Your task to perform on an android device: change notifications settings Image 0: 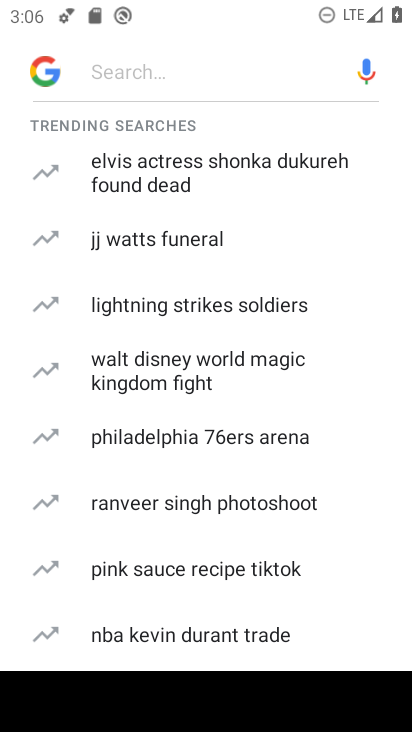
Step 0: press home button
Your task to perform on an android device: change notifications settings Image 1: 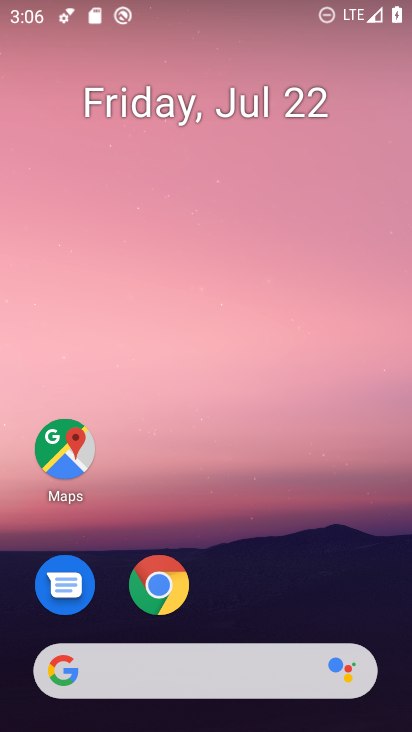
Step 1: drag from (302, 597) to (283, 57)
Your task to perform on an android device: change notifications settings Image 2: 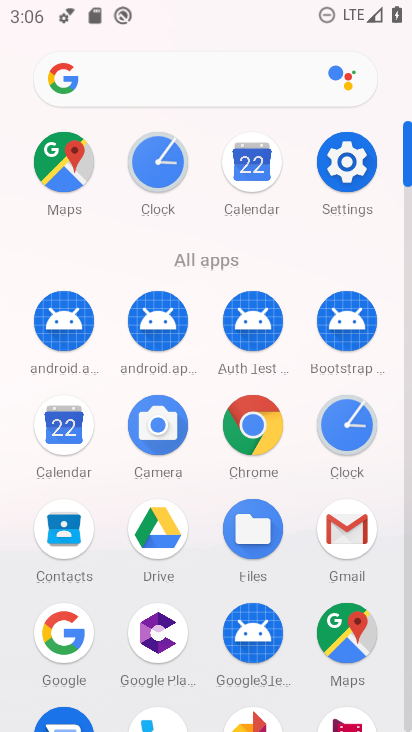
Step 2: click (346, 160)
Your task to perform on an android device: change notifications settings Image 3: 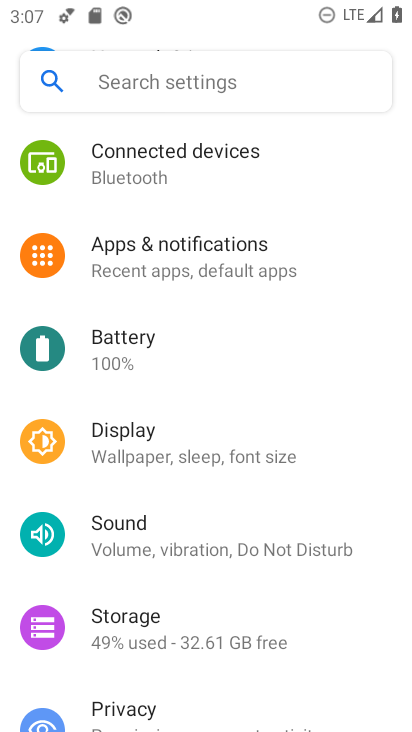
Step 3: click (272, 249)
Your task to perform on an android device: change notifications settings Image 4: 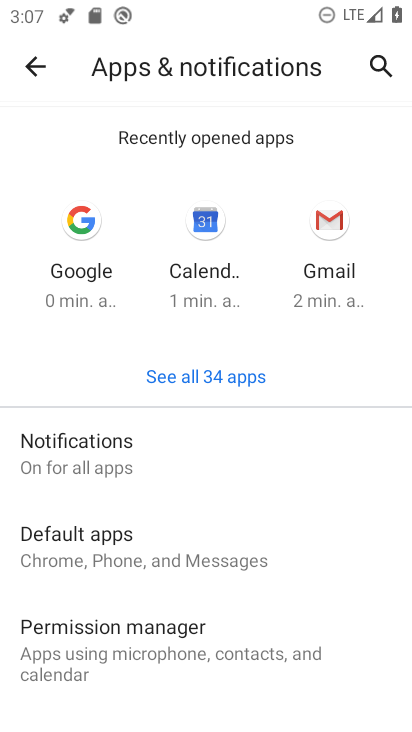
Step 4: click (124, 453)
Your task to perform on an android device: change notifications settings Image 5: 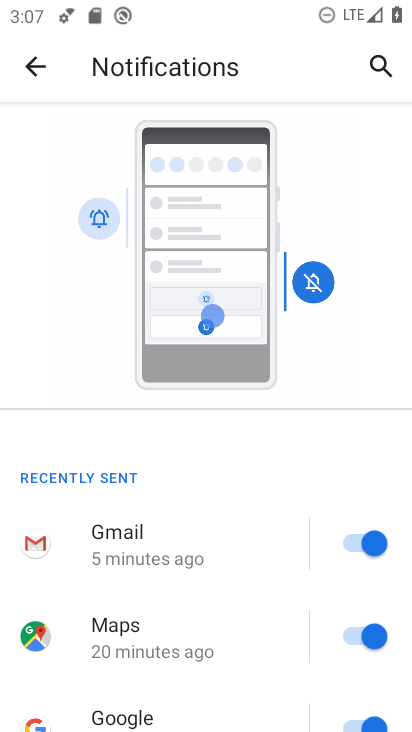
Step 5: drag from (262, 573) to (288, 239)
Your task to perform on an android device: change notifications settings Image 6: 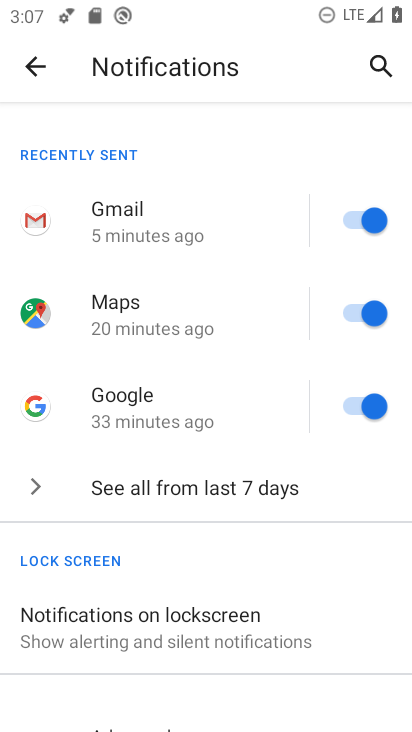
Step 6: click (250, 486)
Your task to perform on an android device: change notifications settings Image 7: 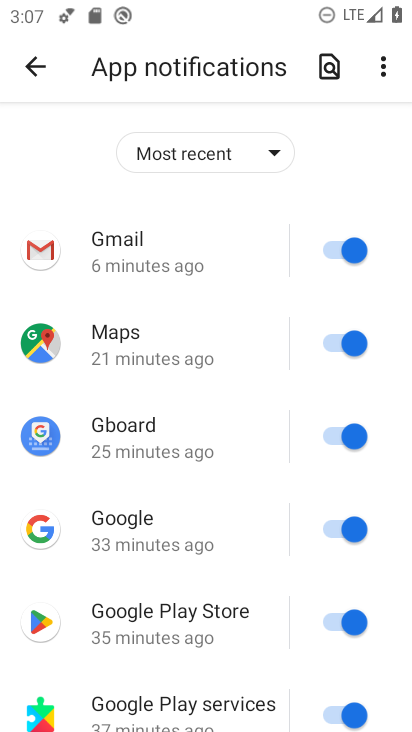
Step 7: click (349, 256)
Your task to perform on an android device: change notifications settings Image 8: 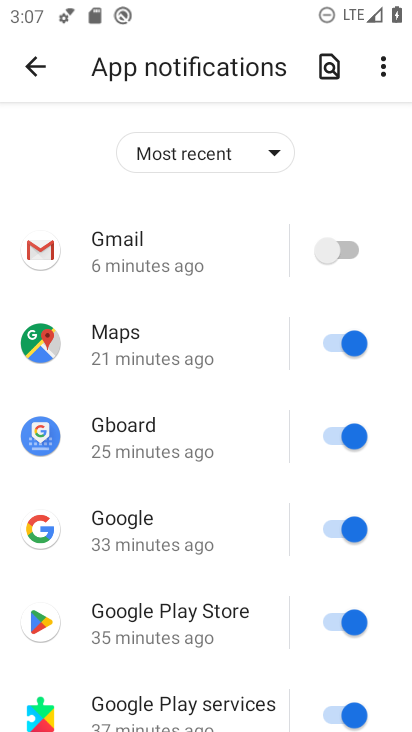
Step 8: click (349, 344)
Your task to perform on an android device: change notifications settings Image 9: 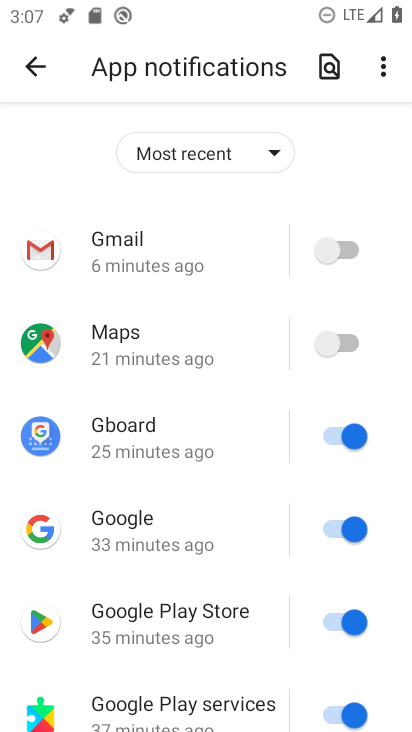
Step 9: click (347, 426)
Your task to perform on an android device: change notifications settings Image 10: 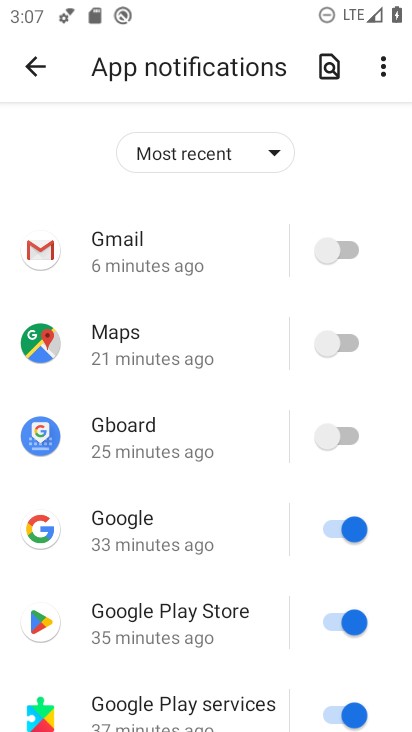
Step 10: click (349, 526)
Your task to perform on an android device: change notifications settings Image 11: 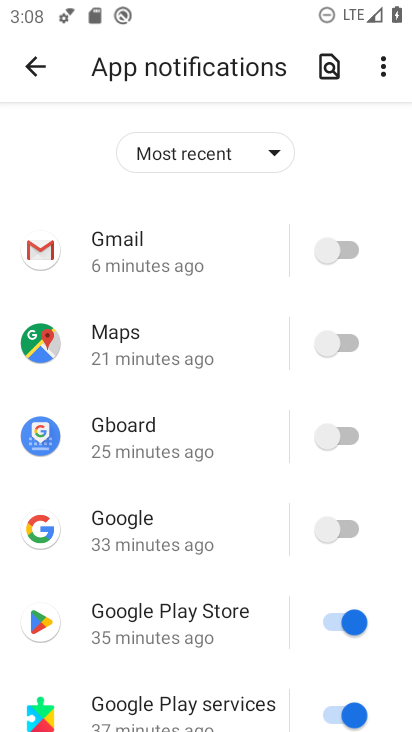
Step 11: click (342, 622)
Your task to perform on an android device: change notifications settings Image 12: 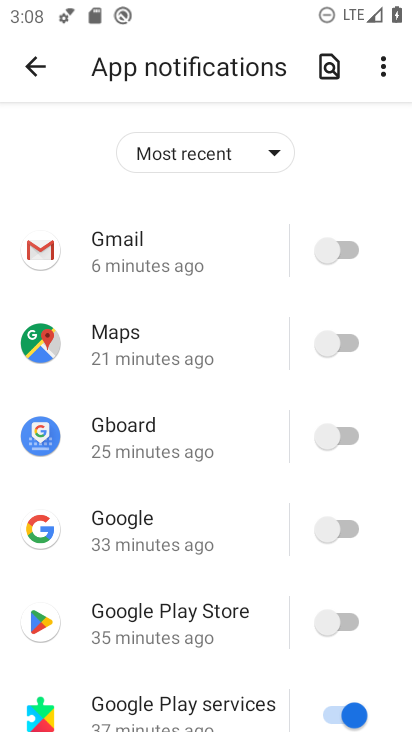
Step 12: drag from (254, 662) to (268, 177)
Your task to perform on an android device: change notifications settings Image 13: 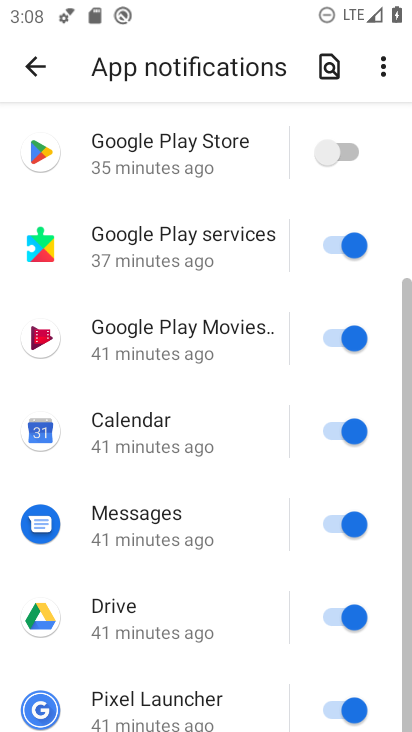
Step 13: click (339, 242)
Your task to perform on an android device: change notifications settings Image 14: 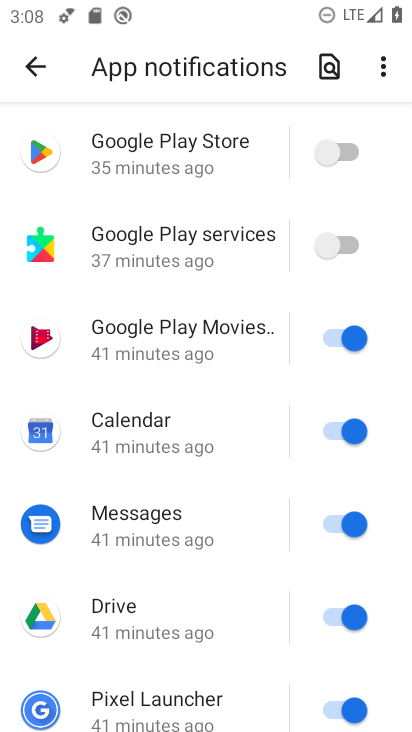
Step 14: click (352, 342)
Your task to perform on an android device: change notifications settings Image 15: 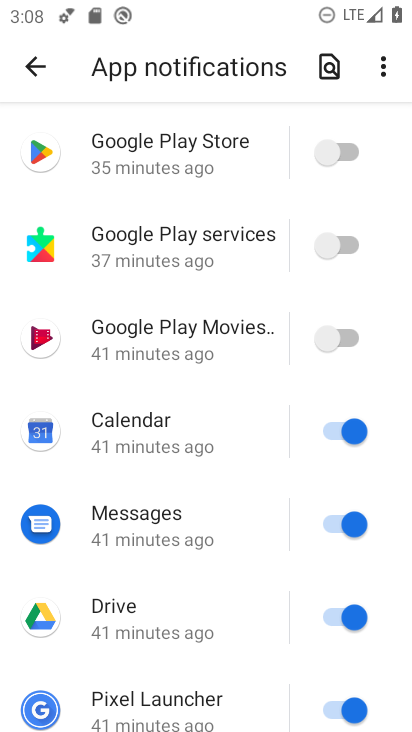
Step 15: click (351, 425)
Your task to perform on an android device: change notifications settings Image 16: 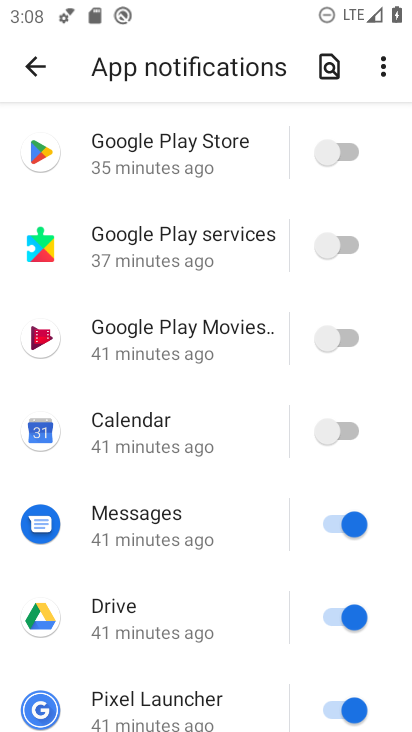
Step 16: click (346, 520)
Your task to perform on an android device: change notifications settings Image 17: 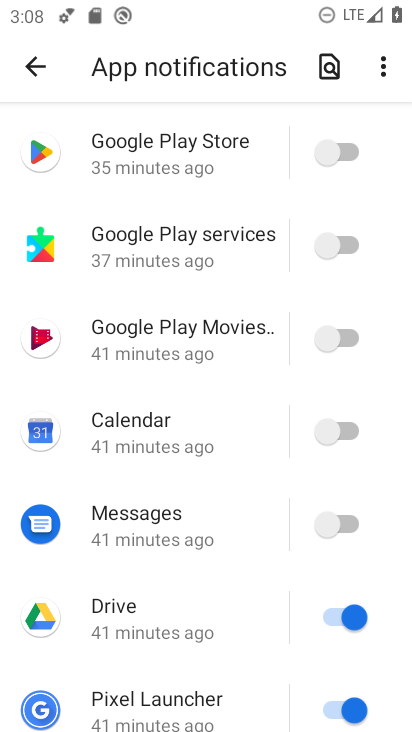
Step 17: click (341, 611)
Your task to perform on an android device: change notifications settings Image 18: 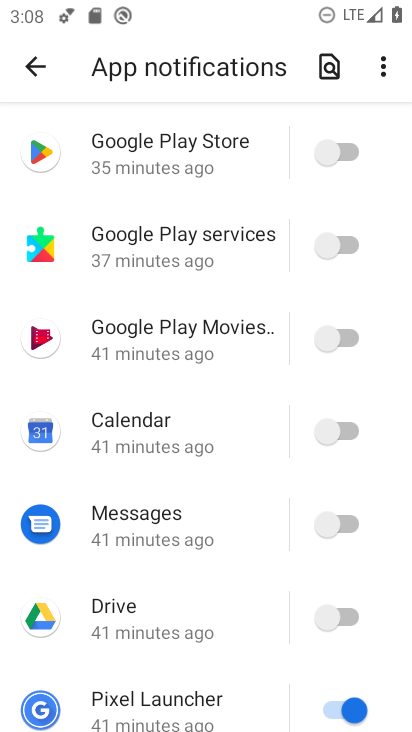
Step 18: drag from (224, 607) to (227, 220)
Your task to perform on an android device: change notifications settings Image 19: 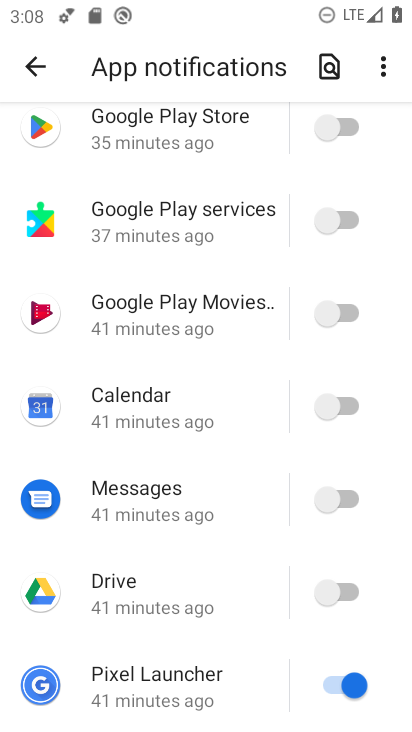
Step 19: click (339, 682)
Your task to perform on an android device: change notifications settings Image 20: 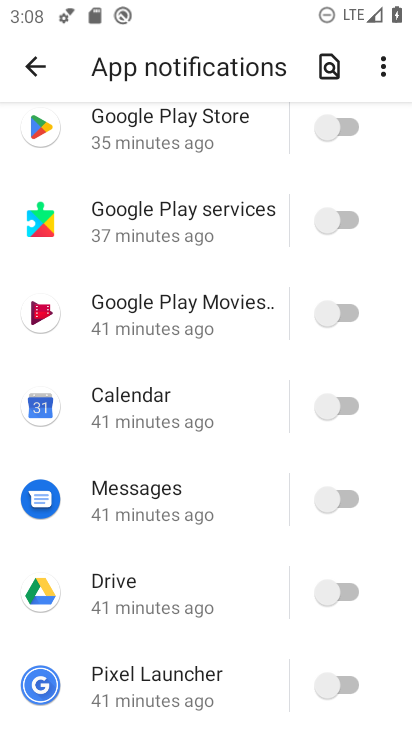
Step 20: task complete